Your task to perform on an android device: change timer sound Image 0: 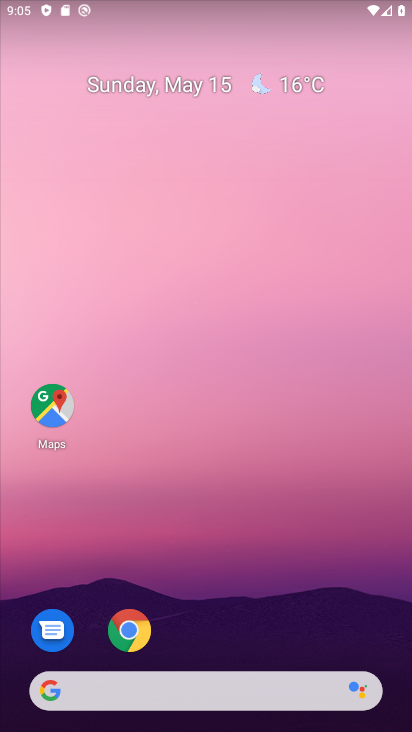
Step 0: drag from (218, 641) to (228, 132)
Your task to perform on an android device: change timer sound Image 1: 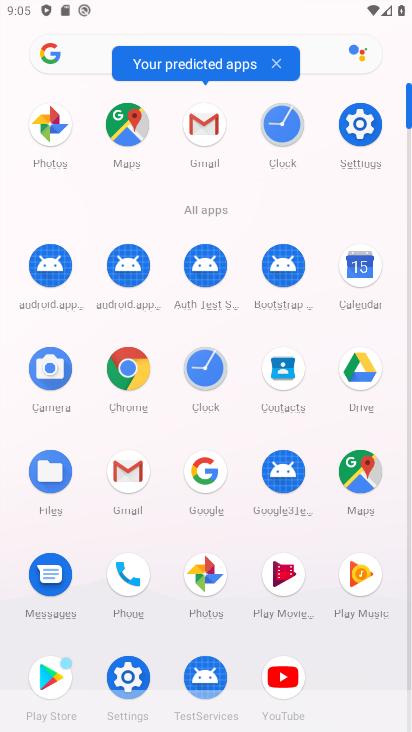
Step 1: click (283, 140)
Your task to perform on an android device: change timer sound Image 2: 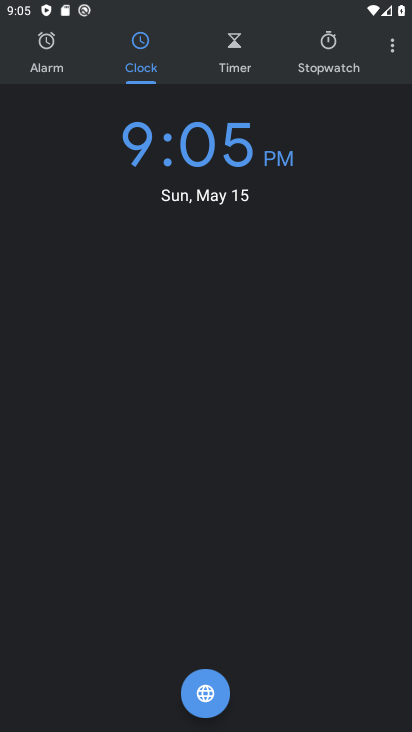
Step 2: click (390, 49)
Your task to perform on an android device: change timer sound Image 3: 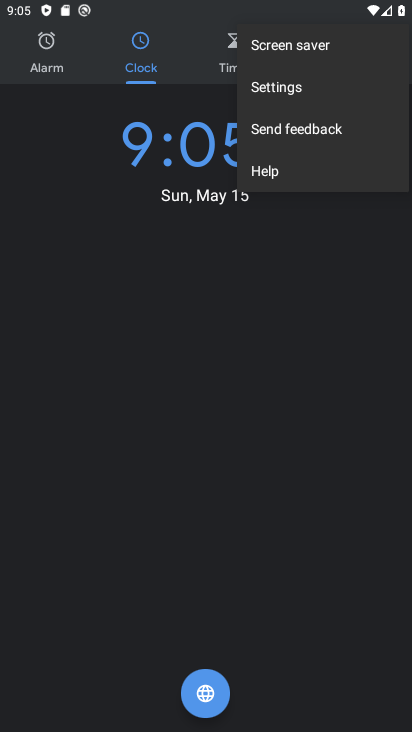
Step 3: click (335, 84)
Your task to perform on an android device: change timer sound Image 4: 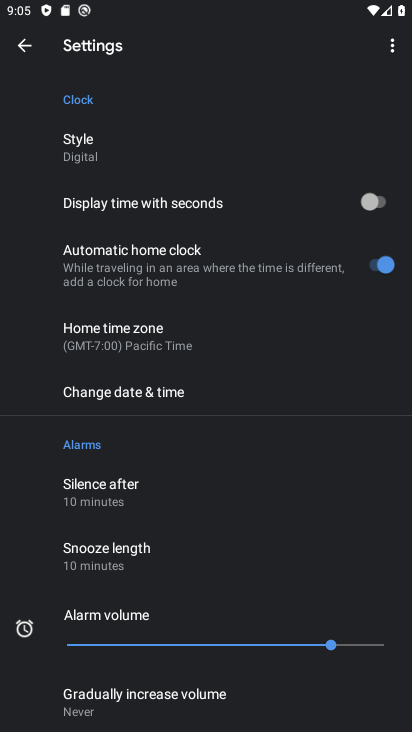
Step 4: drag from (177, 530) to (189, 263)
Your task to perform on an android device: change timer sound Image 5: 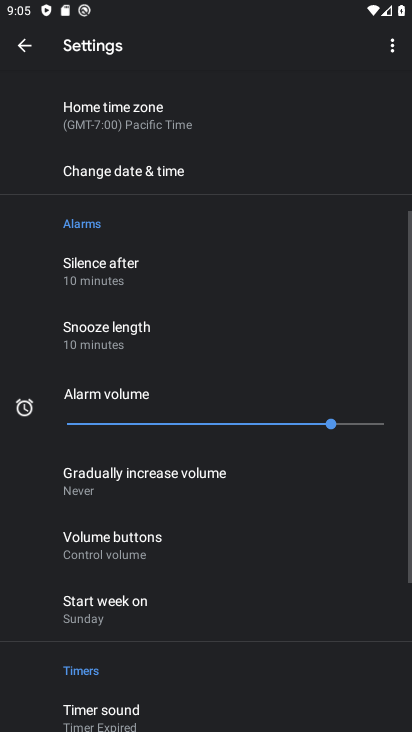
Step 5: drag from (185, 581) to (191, 341)
Your task to perform on an android device: change timer sound Image 6: 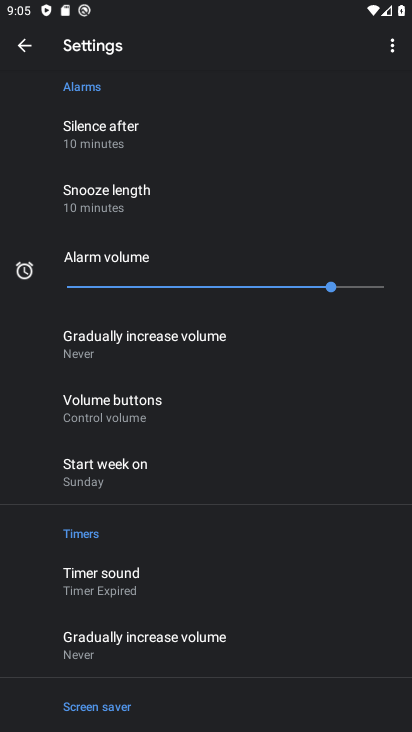
Step 6: click (136, 569)
Your task to perform on an android device: change timer sound Image 7: 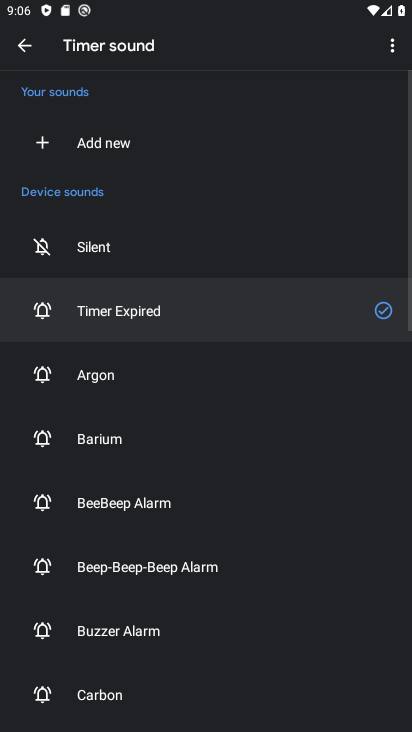
Step 7: click (145, 389)
Your task to perform on an android device: change timer sound Image 8: 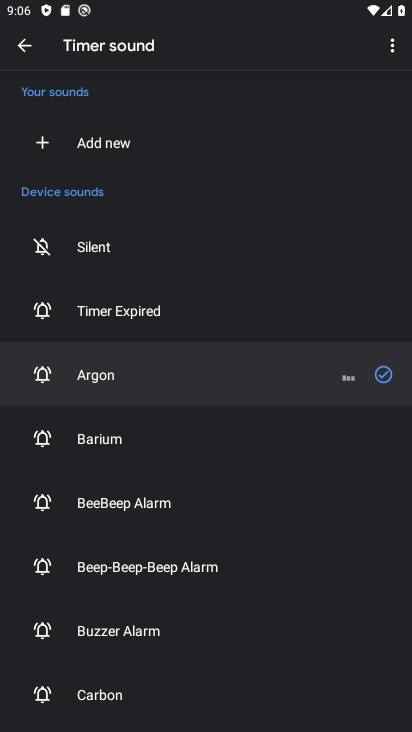
Step 8: task complete